Your task to perform on an android device: turn off smart reply in the gmail app Image 0: 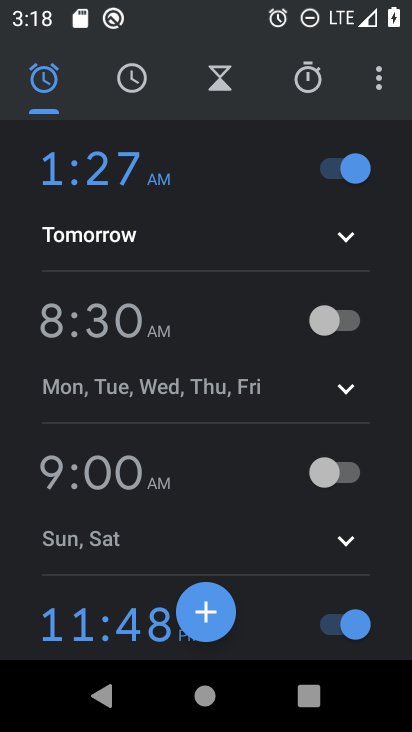
Step 0: press home button
Your task to perform on an android device: turn off smart reply in the gmail app Image 1: 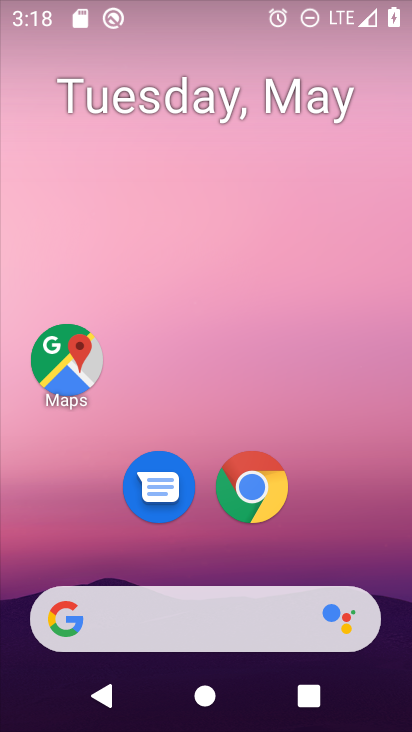
Step 1: drag from (55, 401) to (193, 203)
Your task to perform on an android device: turn off smart reply in the gmail app Image 2: 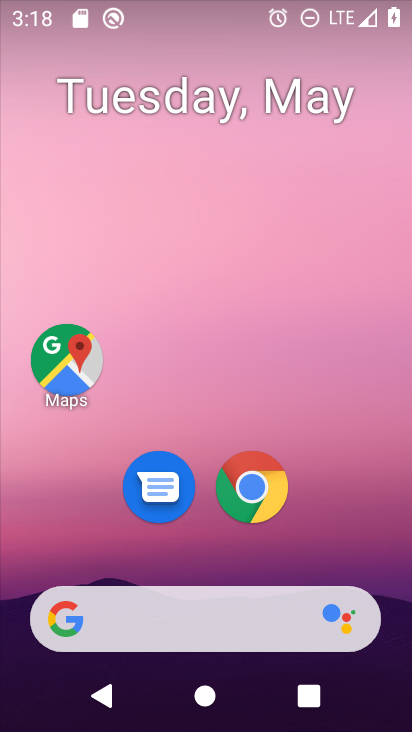
Step 2: drag from (144, 314) to (263, 143)
Your task to perform on an android device: turn off smart reply in the gmail app Image 3: 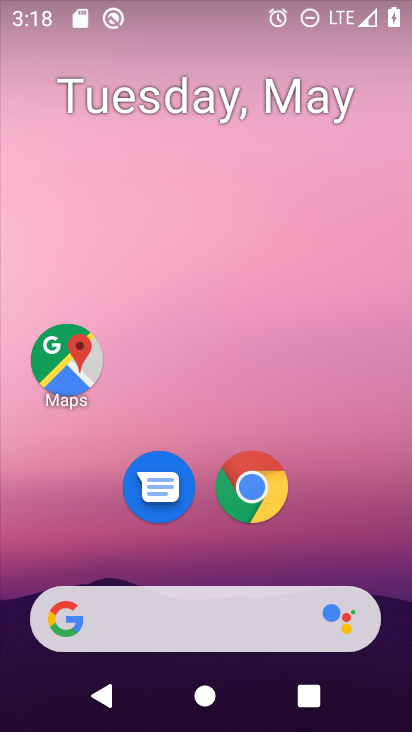
Step 3: drag from (63, 481) to (332, 90)
Your task to perform on an android device: turn off smart reply in the gmail app Image 4: 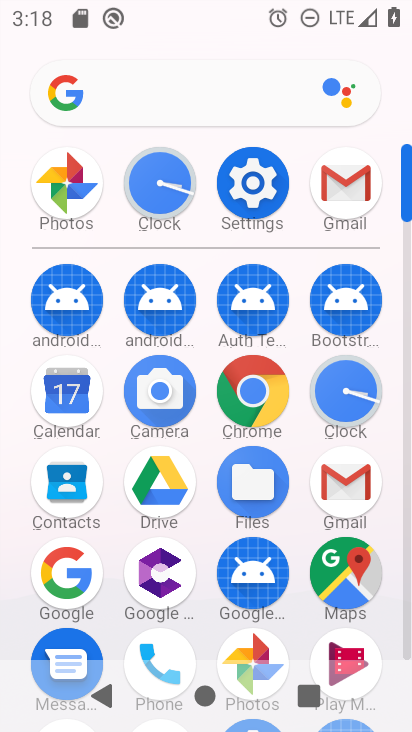
Step 4: click (322, 483)
Your task to perform on an android device: turn off smart reply in the gmail app Image 5: 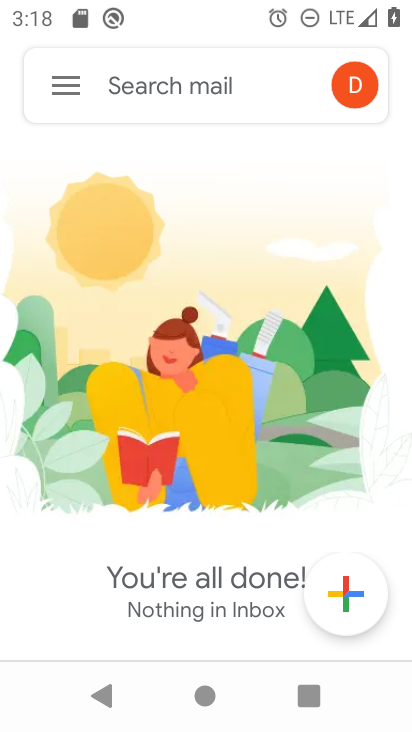
Step 5: click (79, 86)
Your task to perform on an android device: turn off smart reply in the gmail app Image 6: 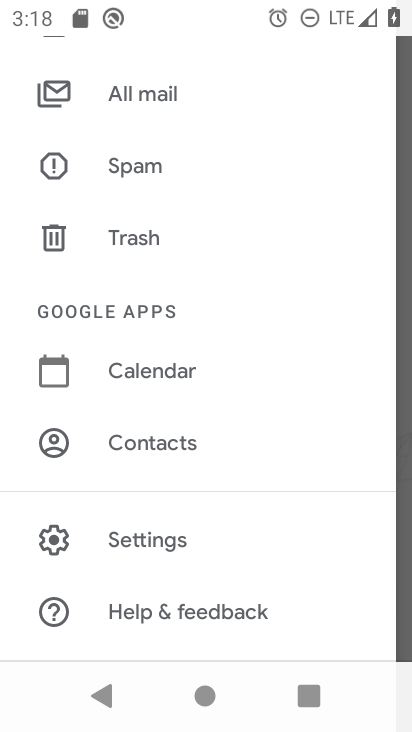
Step 6: click (119, 536)
Your task to perform on an android device: turn off smart reply in the gmail app Image 7: 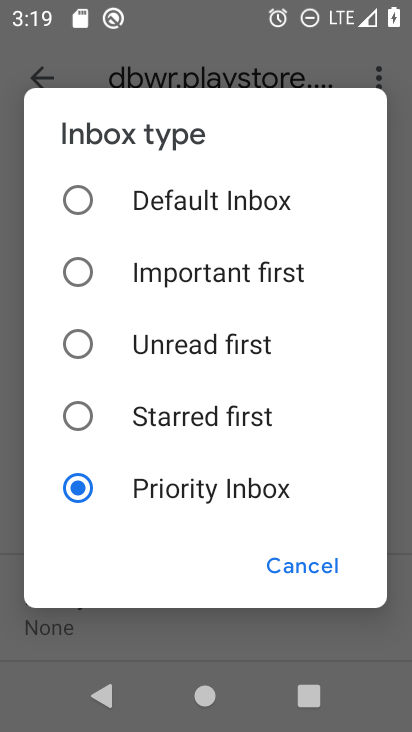
Step 7: click (293, 566)
Your task to perform on an android device: turn off smart reply in the gmail app Image 8: 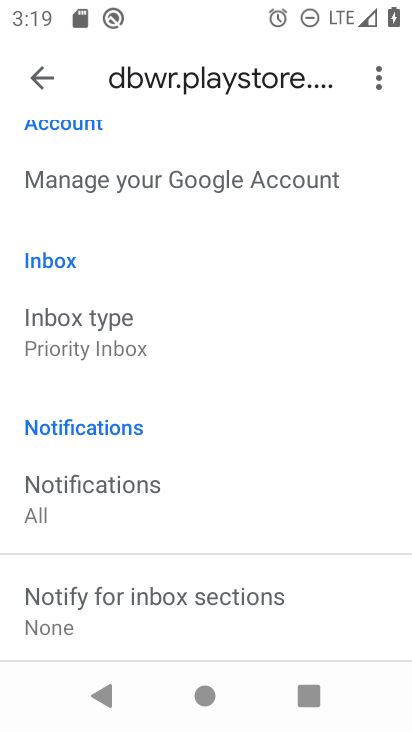
Step 8: task complete